Your task to perform on an android device: visit the assistant section in the google photos Image 0: 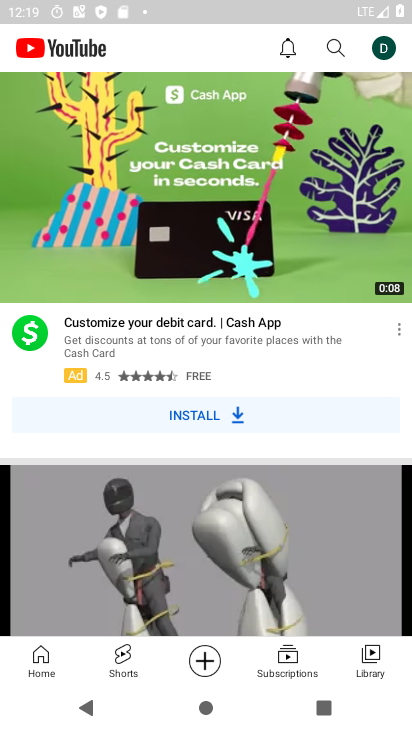
Step 0: press home button
Your task to perform on an android device: visit the assistant section in the google photos Image 1: 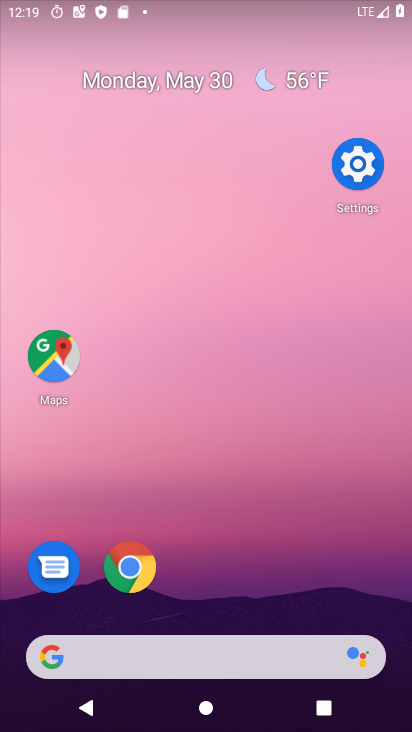
Step 1: drag from (259, 544) to (239, 199)
Your task to perform on an android device: visit the assistant section in the google photos Image 2: 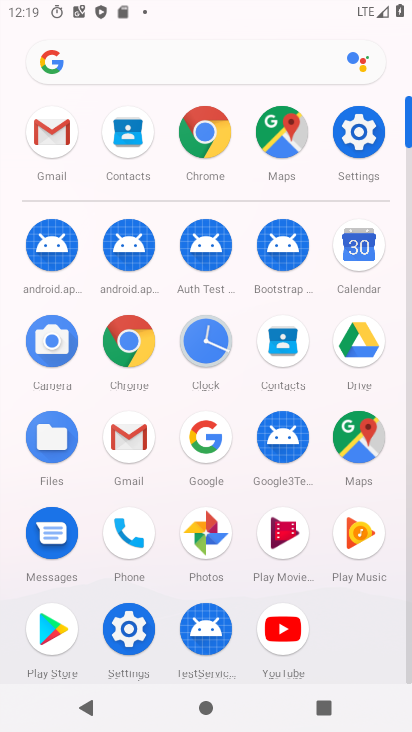
Step 2: click (203, 533)
Your task to perform on an android device: visit the assistant section in the google photos Image 3: 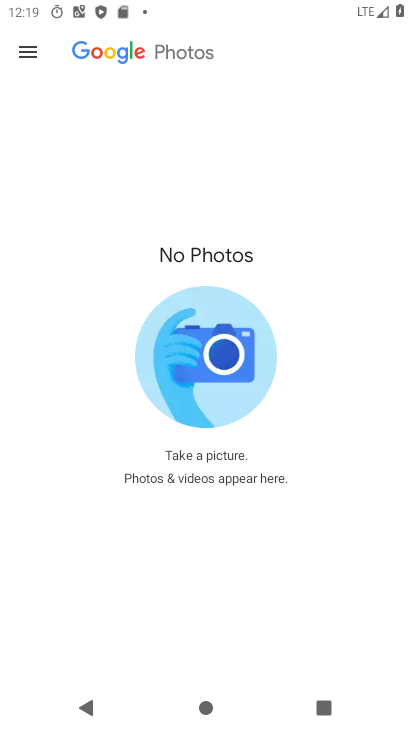
Step 3: click (38, 61)
Your task to perform on an android device: visit the assistant section in the google photos Image 4: 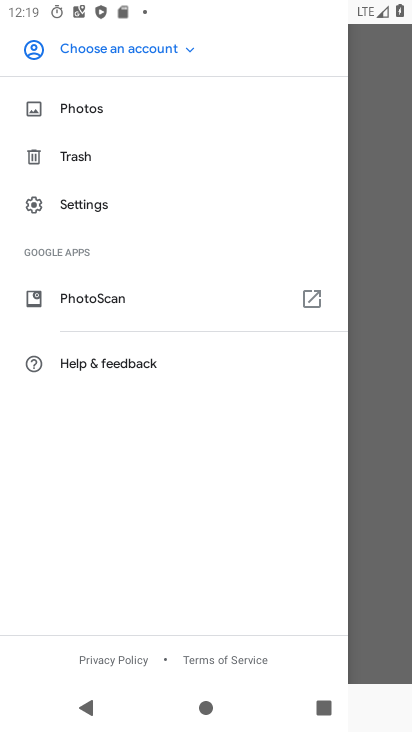
Step 4: click (124, 208)
Your task to perform on an android device: visit the assistant section in the google photos Image 5: 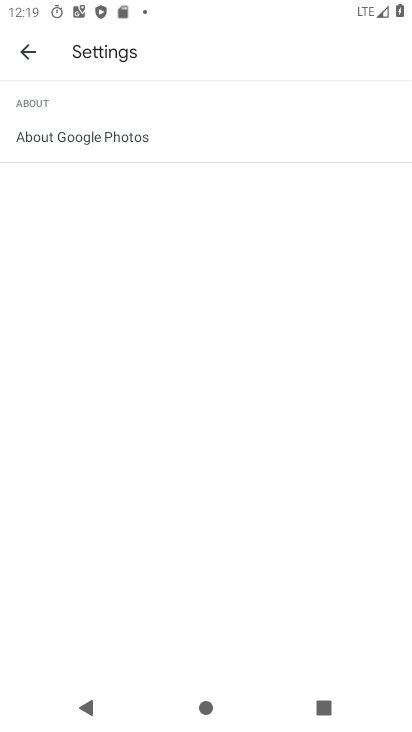
Step 5: click (16, 47)
Your task to perform on an android device: visit the assistant section in the google photos Image 6: 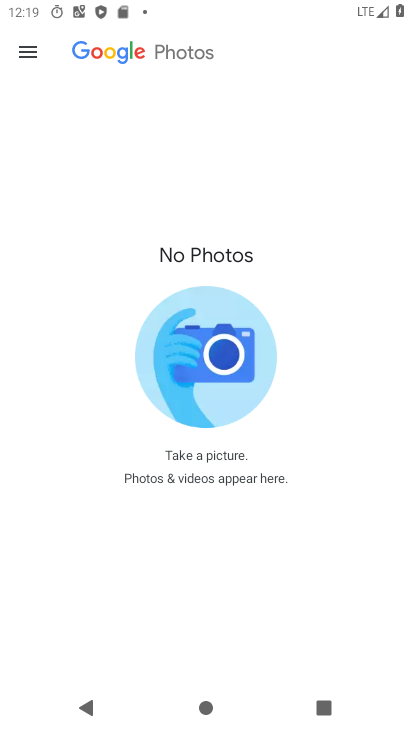
Step 6: task complete